Your task to perform on an android device: turn on priority inbox in the gmail app Image 0: 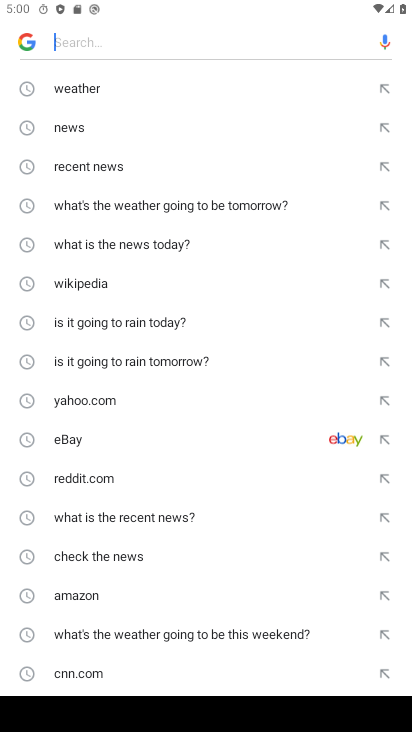
Step 0: press back button
Your task to perform on an android device: turn on priority inbox in the gmail app Image 1: 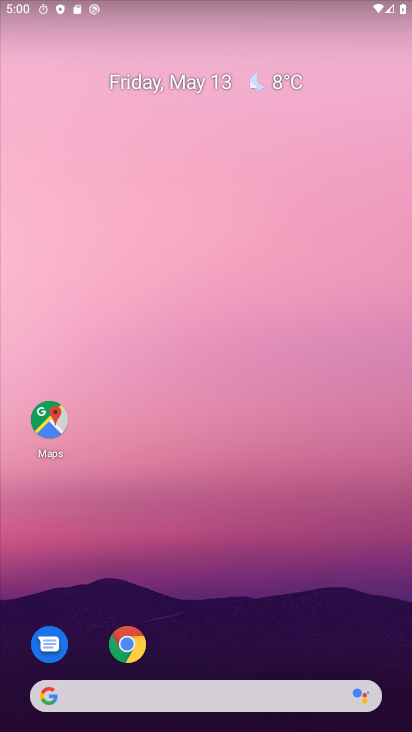
Step 1: drag from (242, 618) to (243, 174)
Your task to perform on an android device: turn on priority inbox in the gmail app Image 2: 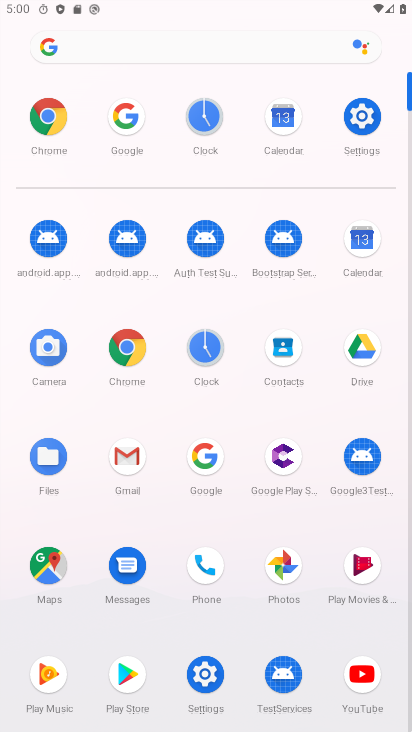
Step 2: click (128, 462)
Your task to perform on an android device: turn on priority inbox in the gmail app Image 3: 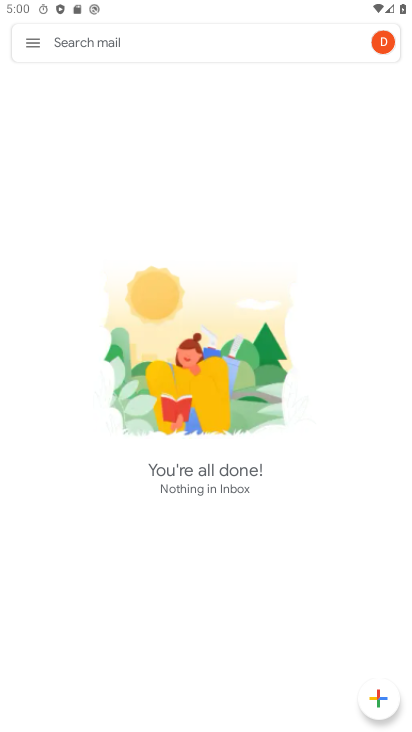
Step 3: click (29, 38)
Your task to perform on an android device: turn on priority inbox in the gmail app Image 4: 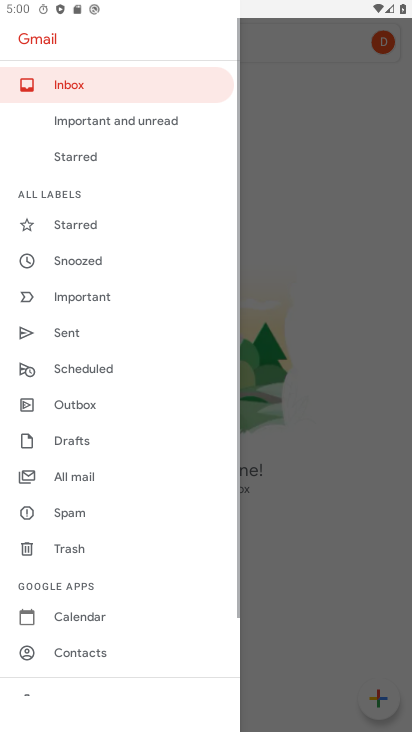
Step 4: drag from (69, 596) to (78, 213)
Your task to perform on an android device: turn on priority inbox in the gmail app Image 5: 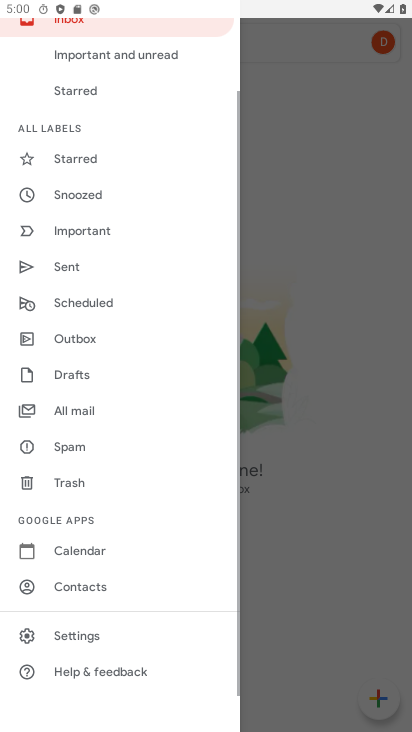
Step 5: click (70, 626)
Your task to perform on an android device: turn on priority inbox in the gmail app Image 6: 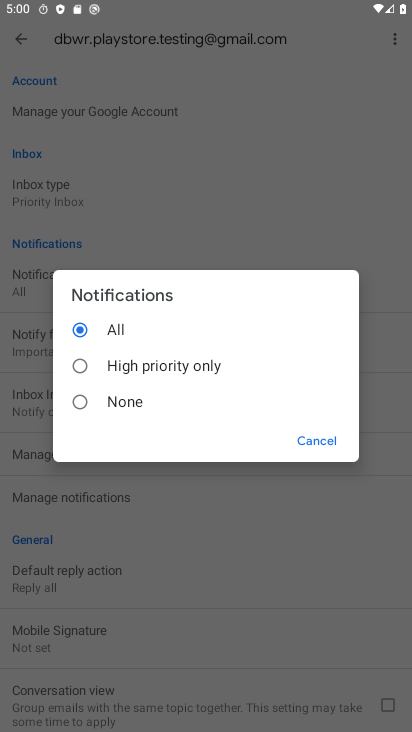
Step 6: click (333, 442)
Your task to perform on an android device: turn on priority inbox in the gmail app Image 7: 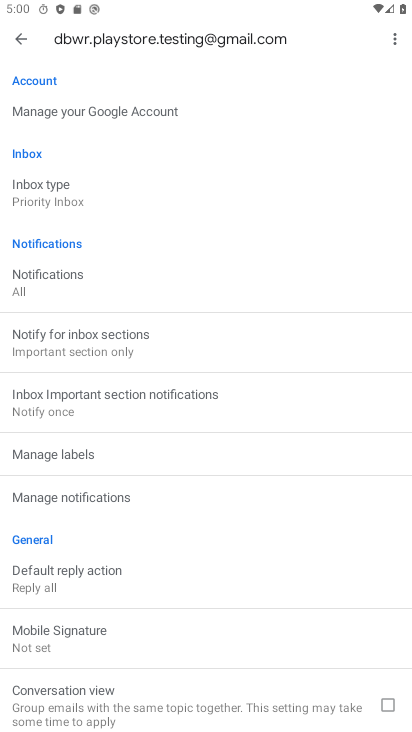
Step 7: click (76, 194)
Your task to perform on an android device: turn on priority inbox in the gmail app Image 8: 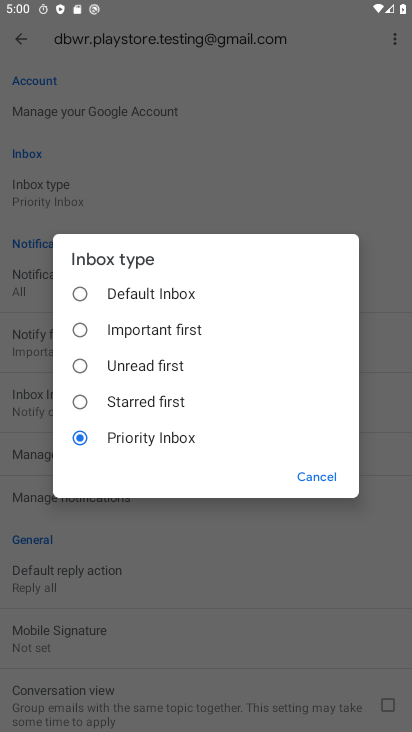
Step 8: task complete